Your task to perform on an android device: Open Chrome and go to the settings page Image 0: 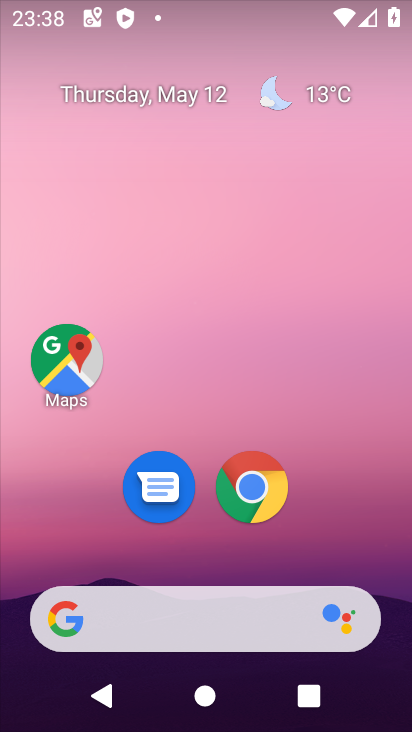
Step 0: click (239, 498)
Your task to perform on an android device: Open Chrome and go to the settings page Image 1: 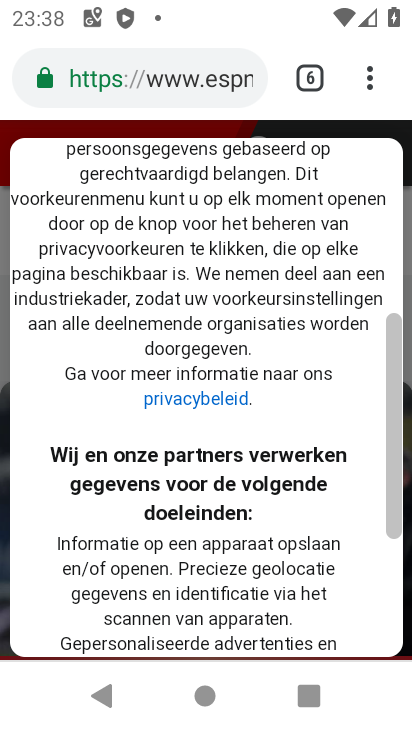
Step 1: click (389, 63)
Your task to perform on an android device: Open Chrome and go to the settings page Image 2: 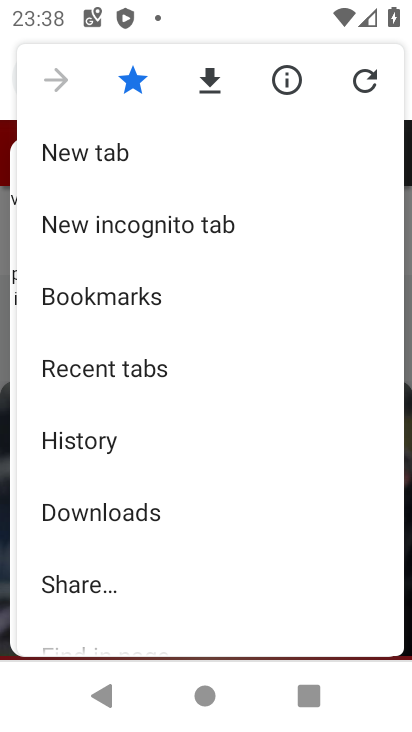
Step 2: drag from (108, 575) to (161, 145)
Your task to perform on an android device: Open Chrome and go to the settings page Image 3: 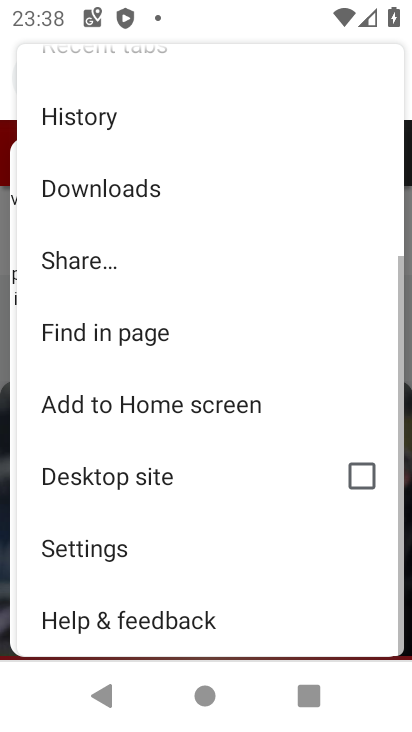
Step 3: click (144, 566)
Your task to perform on an android device: Open Chrome and go to the settings page Image 4: 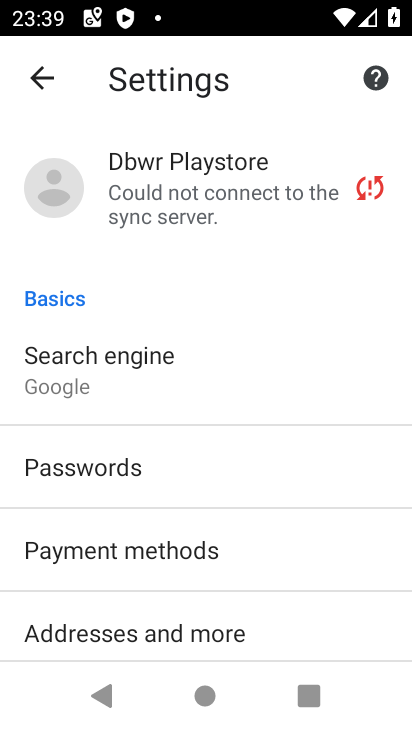
Step 4: task complete